Your task to perform on an android device: Open network settings Image 0: 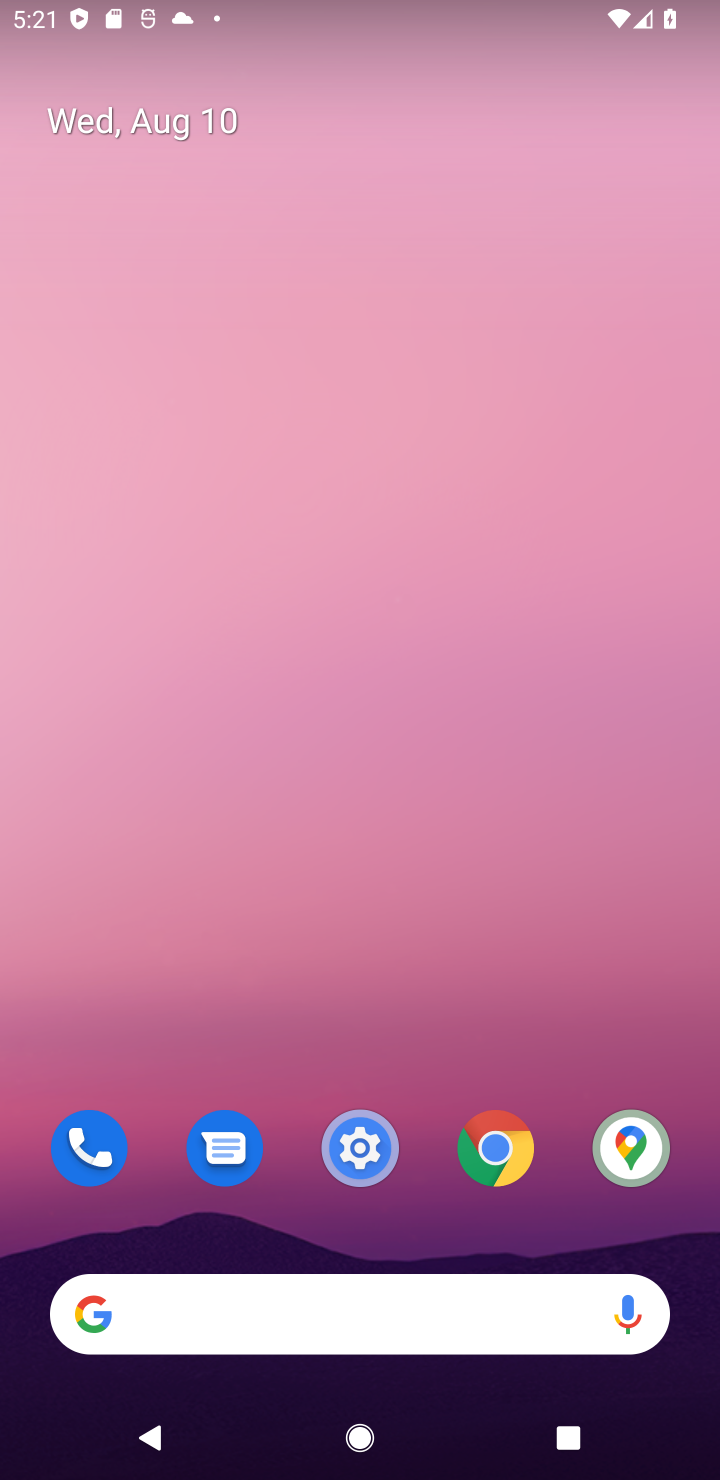
Step 0: click (352, 1155)
Your task to perform on an android device: Open network settings Image 1: 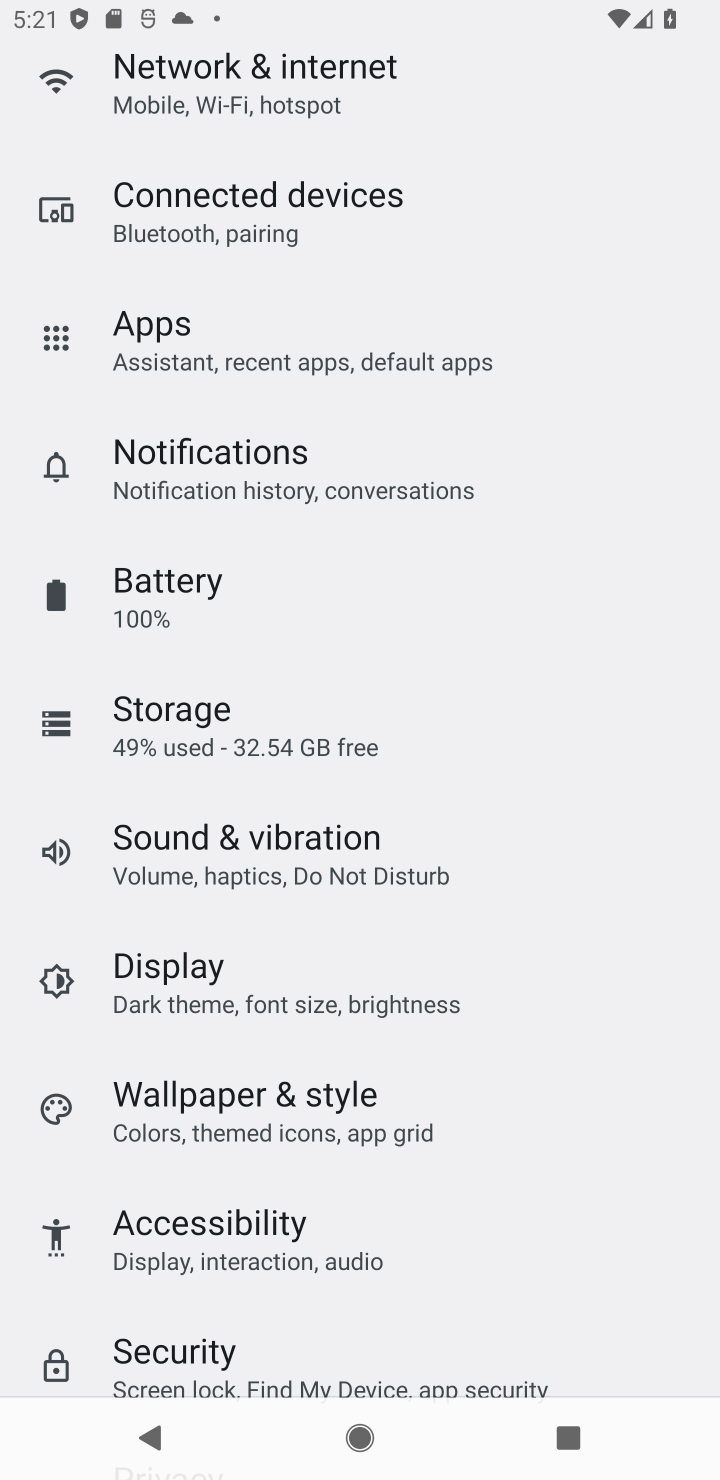
Step 1: drag from (461, 266) to (546, 1053)
Your task to perform on an android device: Open network settings Image 2: 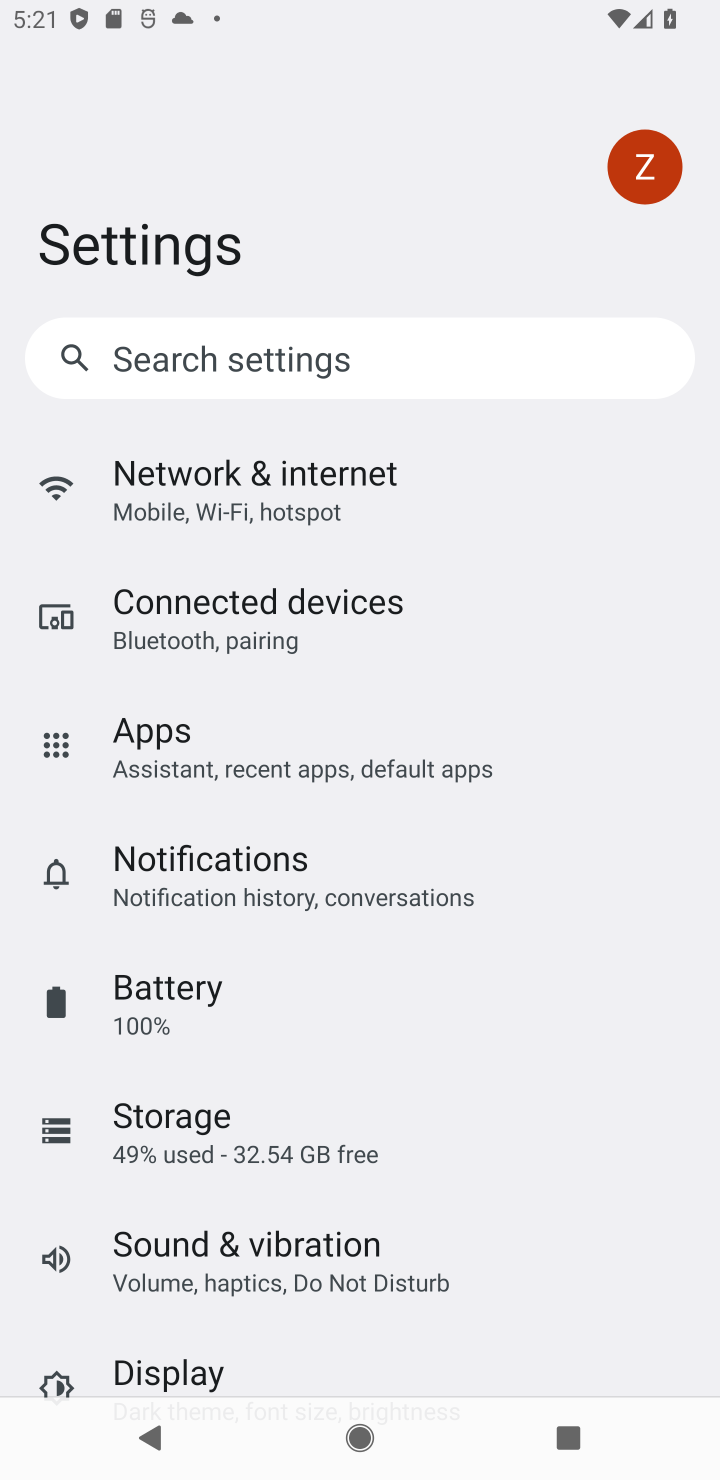
Step 2: click (208, 491)
Your task to perform on an android device: Open network settings Image 3: 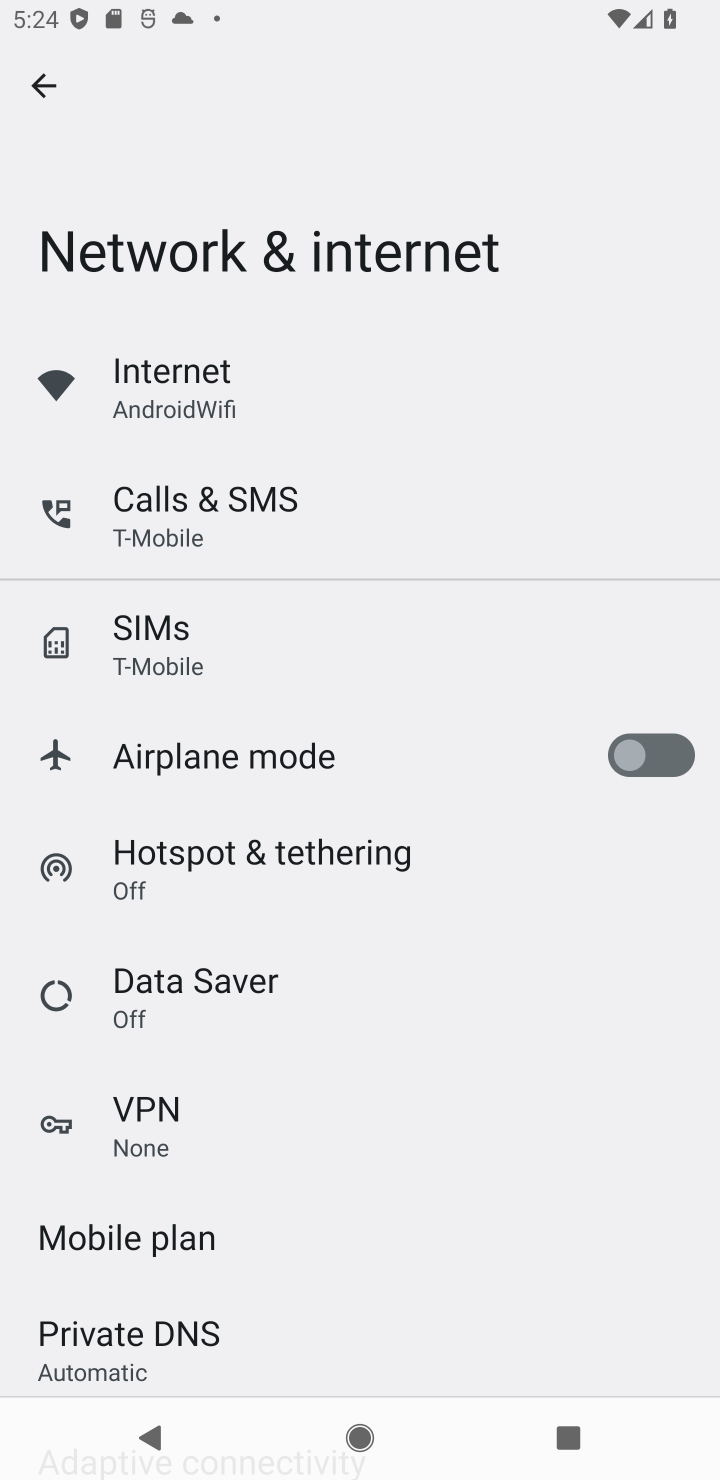
Step 3: task complete